Your task to perform on an android device: Search for "usb-b" on amazon.com, select the first entry, add it to the cart, then select checkout. Image 0: 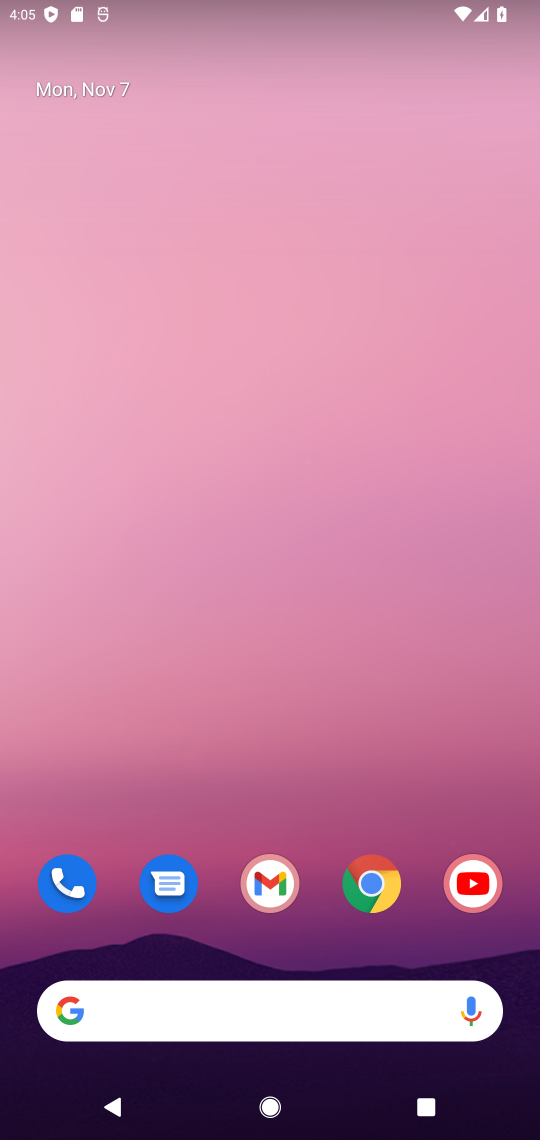
Step 0: click (368, 882)
Your task to perform on an android device: Search for "usb-b" on amazon.com, select the first entry, add it to the cart, then select checkout. Image 1: 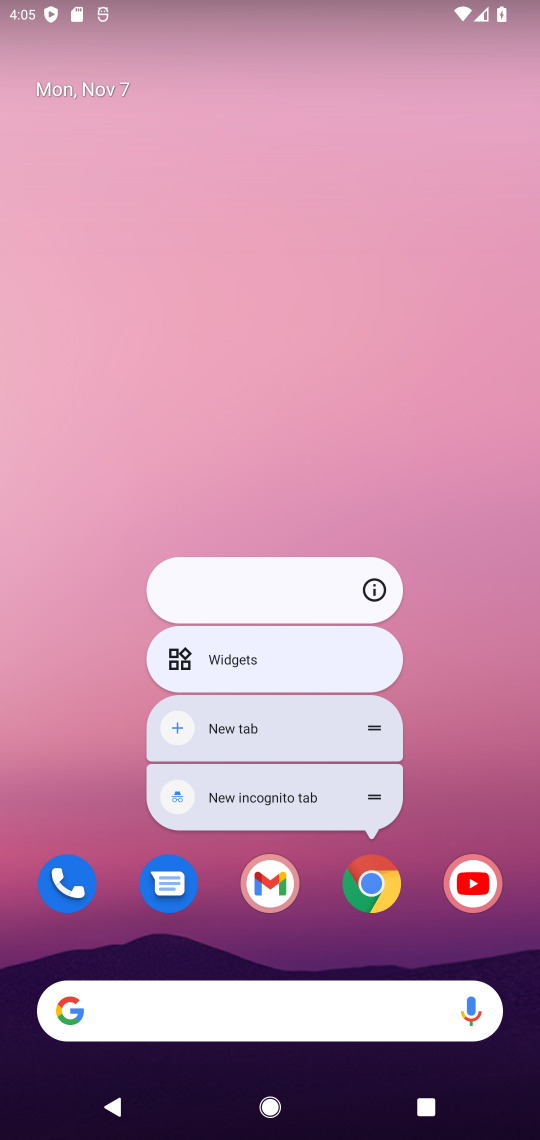
Step 1: click (370, 893)
Your task to perform on an android device: Search for "usb-b" on amazon.com, select the first entry, add it to the cart, then select checkout. Image 2: 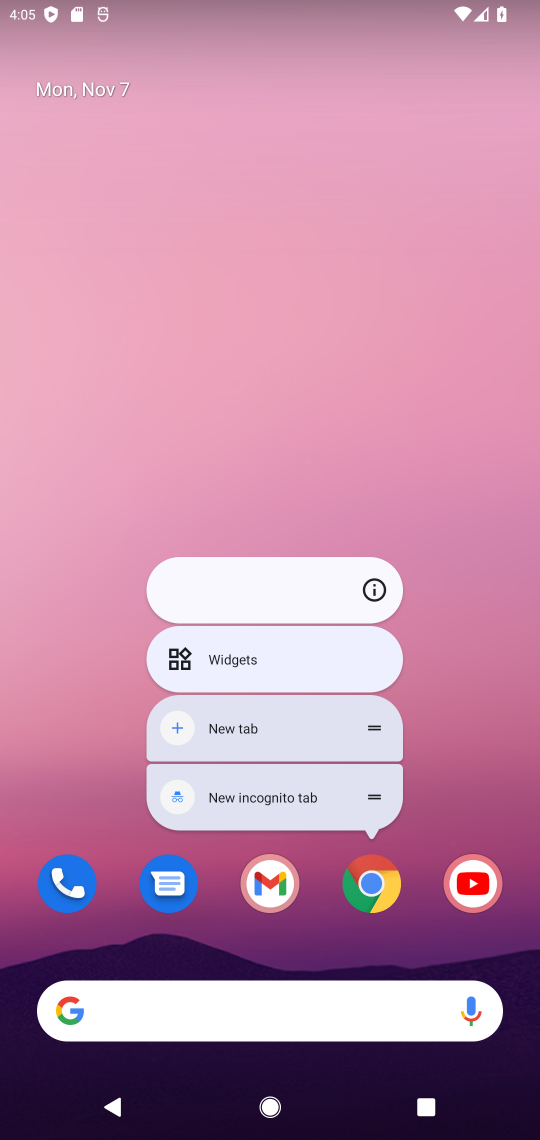
Step 2: click (370, 895)
Your task to perform on an android device: Search for "usb-b" on amazon.com, select the first entry, add it to the cart, then select checkout. Image 3: 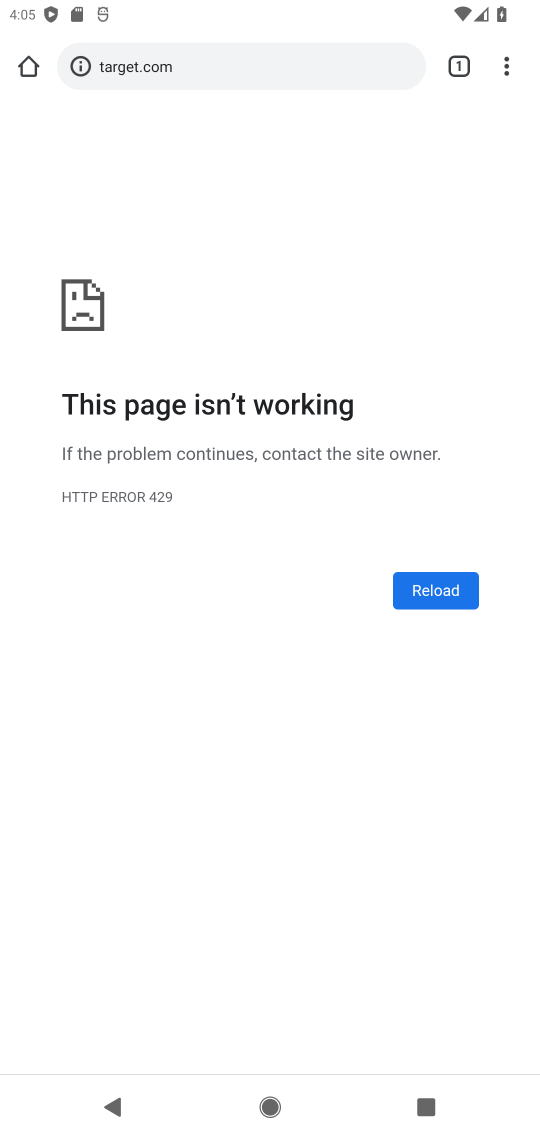
Step 3: click (293, 63)
Your task to perform on an android device: Search for "usb-b" on amazon.com, select the first entry, add it to the cart, then select checkout. Image 4: 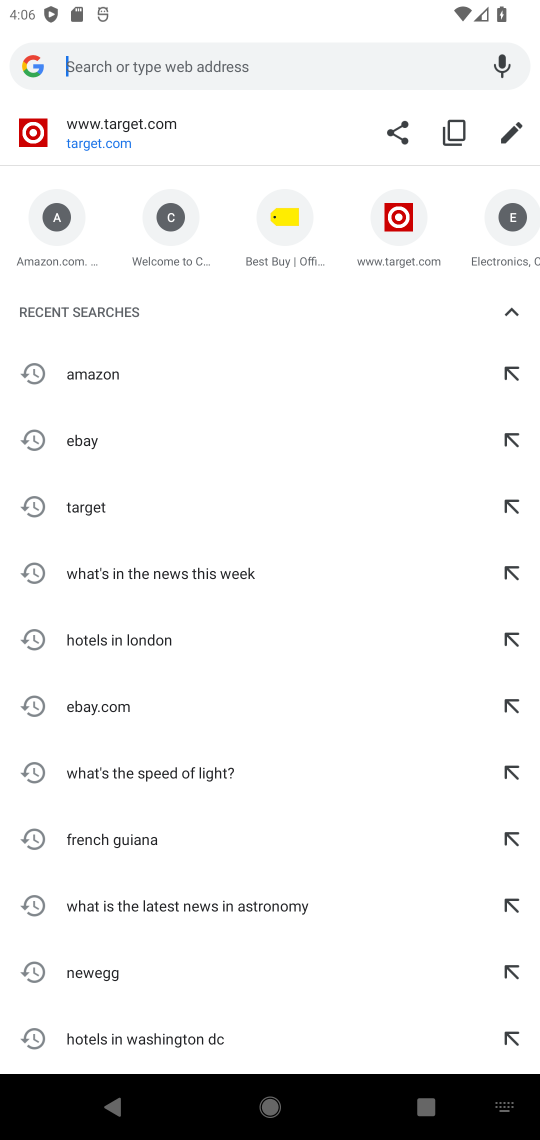
Step 4: click (28, 251)
Your task to perform on an android device: Search for "usb-b" on amazon.com, select the first entry, add it to the cart, then select checkout. Image 5: 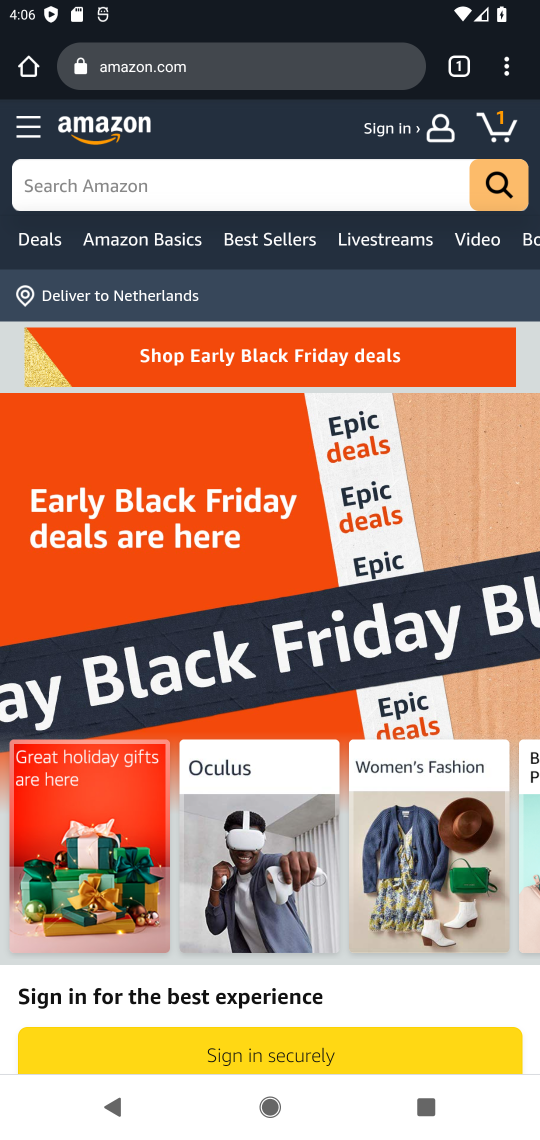
Step 5: click (191, 167)
Your task to perform on an android device: Search for "usb-b" on amazon.com, select the first entry, add it to the cart, then select checkout. Image 6: 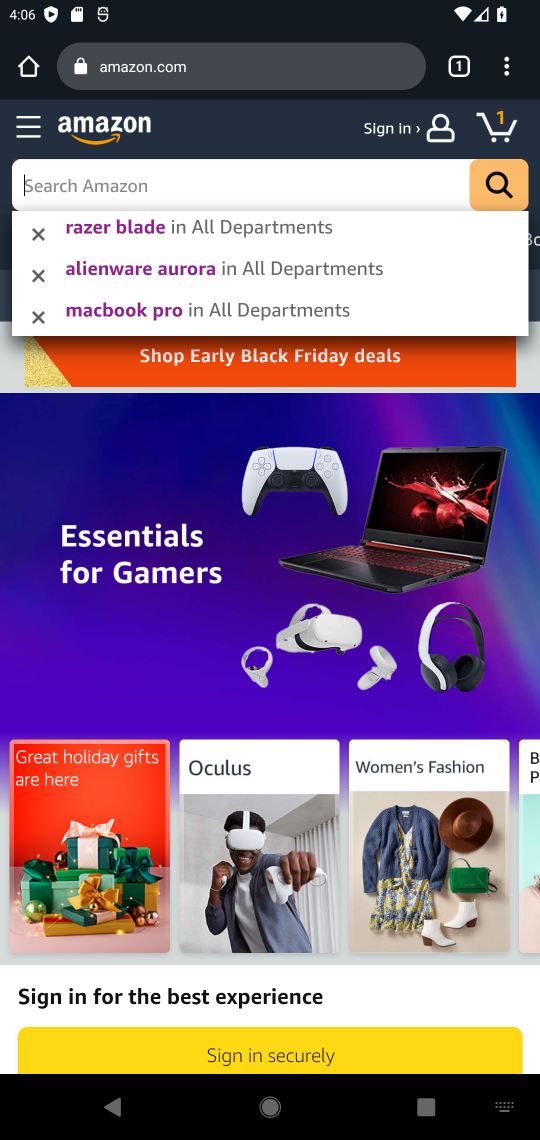
Step 6: type "usb-b"
Your task to perform on an android device: Search for "usb-b" on amazon.com, select the first entry, add it to the cart, then select checkout. Image 7: 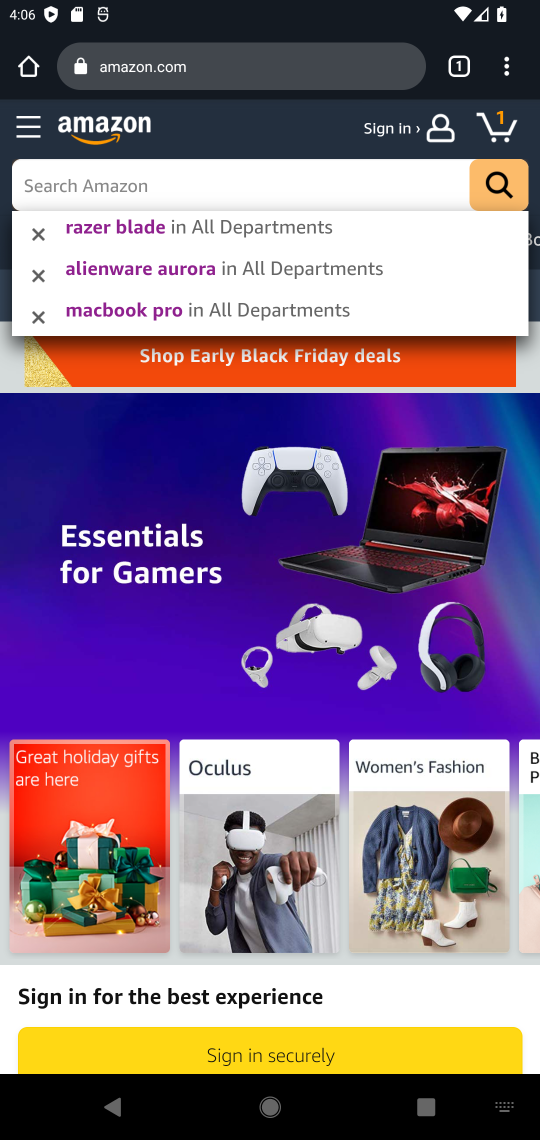
Step 7: press enter
Your task to perform on an android device: Search for "usb-b" on amazon.com, select the first entry, add it to the cart, then select checkout. Image 8: 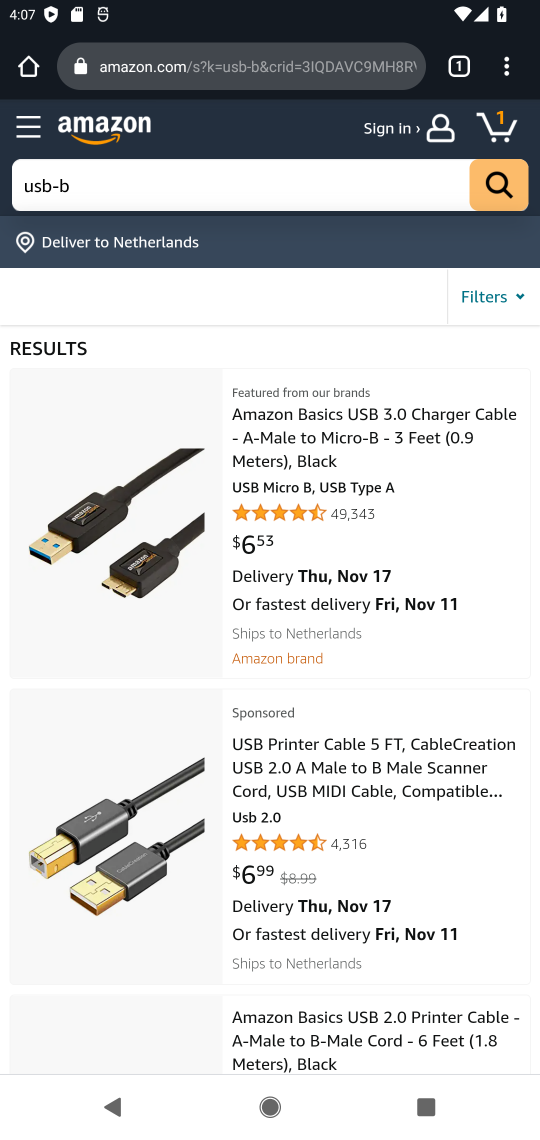
Step 8: task complete